Your task to perform on an android device: turn pop-ups on in chrome Image 0: 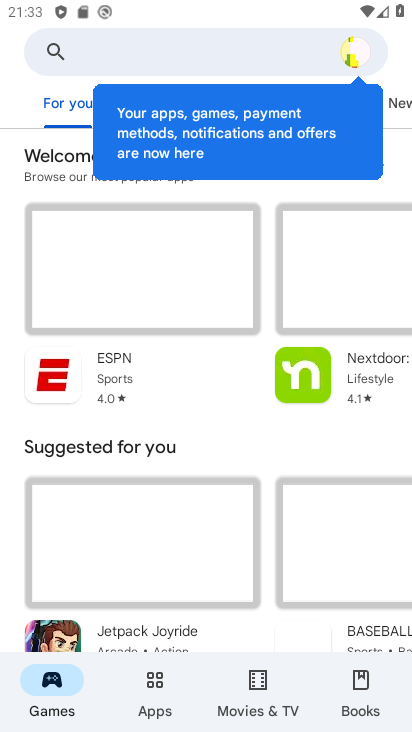
Step 0: press home button
Your task to perform on an android device: turn pop-ups on in chrome Image 1: 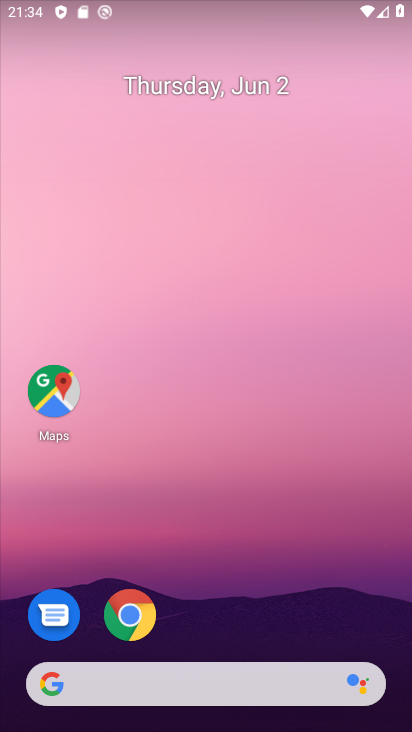
Step 1: click (135, 608)
Your task to perform on an android device: turn pop-ups on in chrome Image 2: 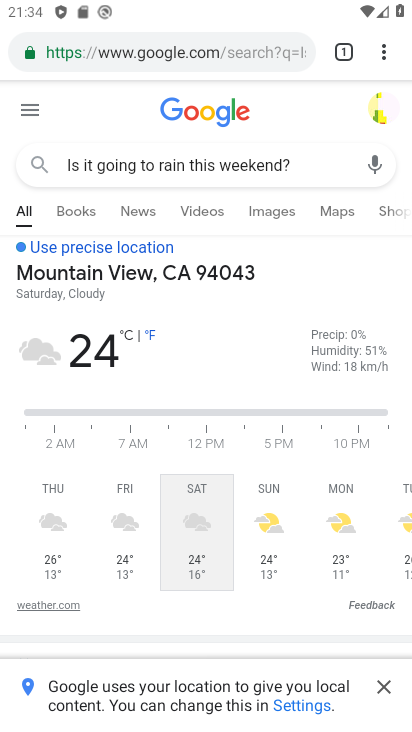
Step 2: click (384, 50)
Your task to perform on an android device: turn pop-ups on in chrome Image 3: 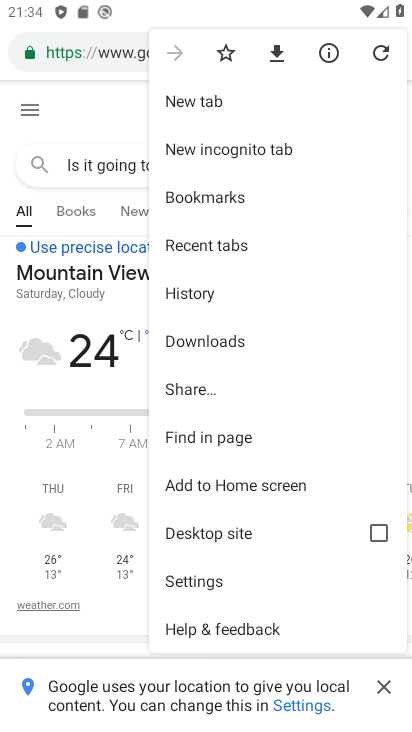
Step 3: click (209, 583)
Your task to perform on an android device: turn pop-ups on in chrome Image 4: 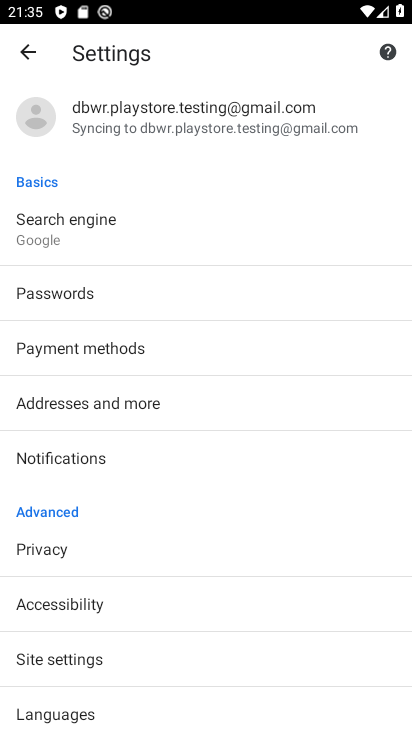
Step 4: click (25, 659)
Your task to perform on an android device: turn pop-ups on in chrome Image 5: 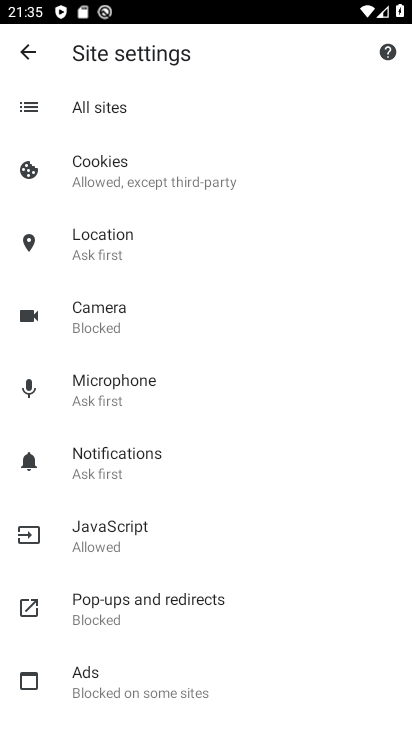
Step 5: click (97, 621)
Your task to perform on an android device: turn pop-ups on in chrome Image 6: 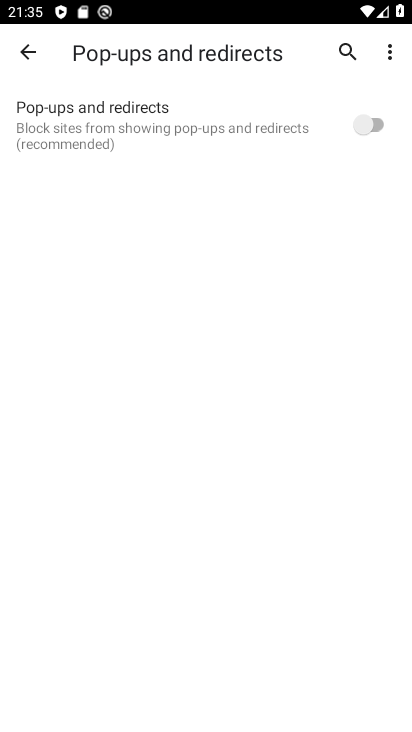
Step 6: click (375, 135)
Your task to perform on an android device: turn pop-ups on in chrome Image 7: 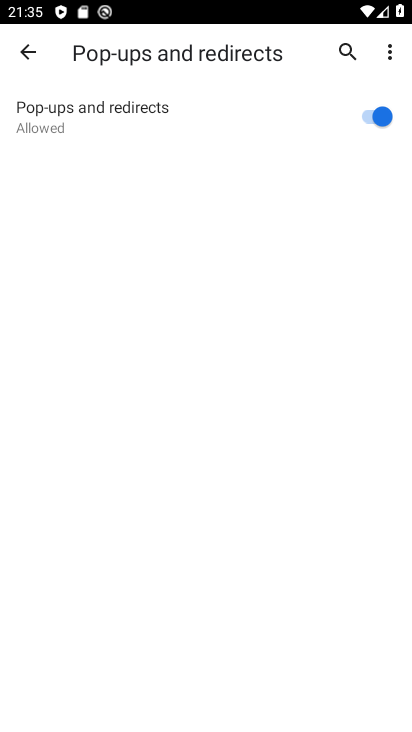
Step 7: task complete